Your task to perform on an android device: Do I have any events tomorrow? Image 0: 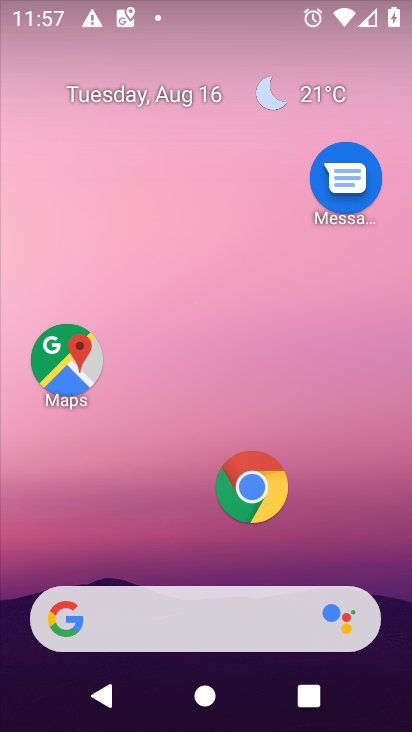
Step 0: drag from (141, 430) to (190, 64)
Your task to perform on an android device: Do I have any events tomorrow? Image 1: 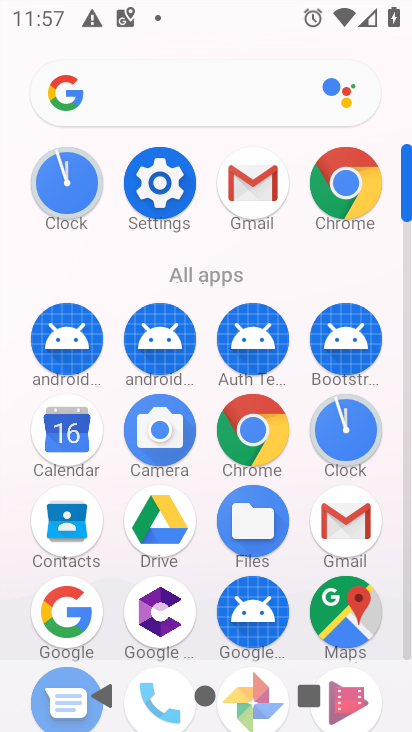
Step 1: click (70, 434)
Your task to perform on an android device: Do I have any events tomorrow? Image 2: 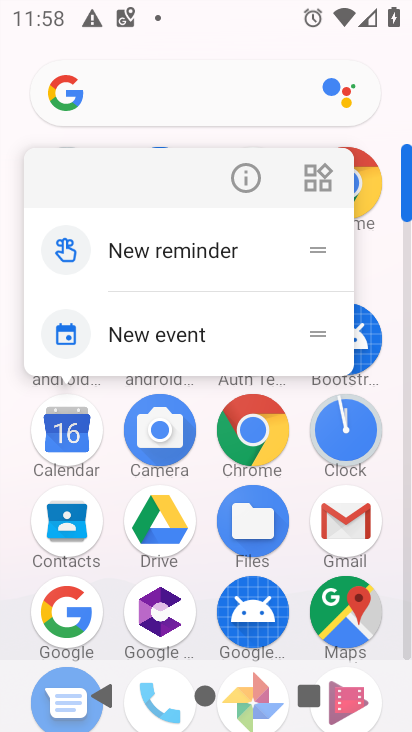
Step 2: click (56, 427)
Your task to perform on an android device: Do I have any events tomorrow? Image 3: 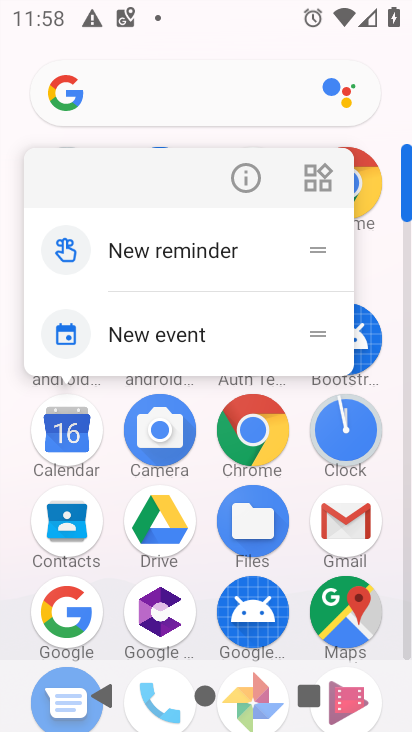
Step 3: click (77, 422)
Your task to perform on an android device: Do I have any events tomorrow? Image 4: 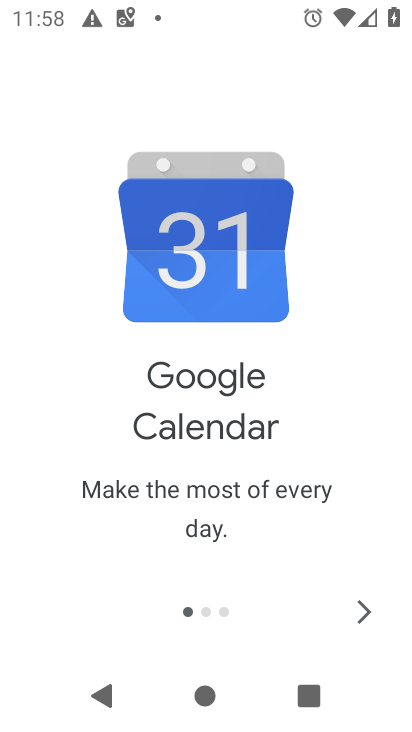
Step 4: click (356, 602)
Your task to perform on an android device: Do I have any events tomorrow? Image 5: 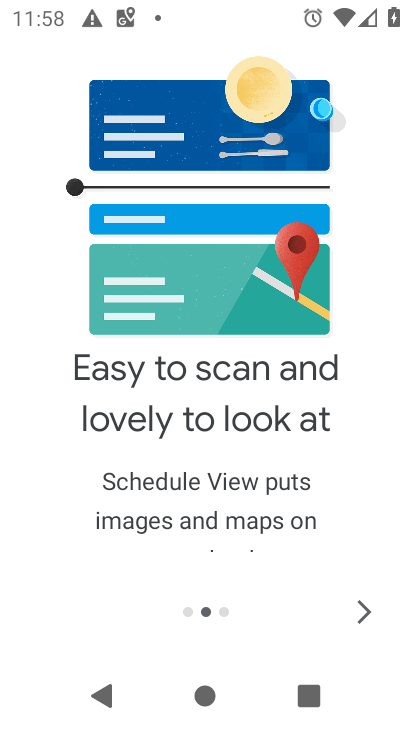
Step 5: click (355, 608)
Your task to perform on an android device: Do I have any events tomorrow? Image 6: 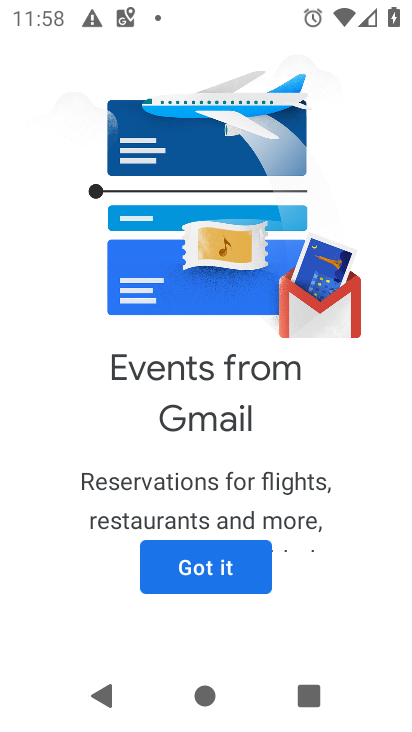
Step 6: click (174, 561)
Your task to perform on an android device: Do I have any events tomorrow? Image 7: 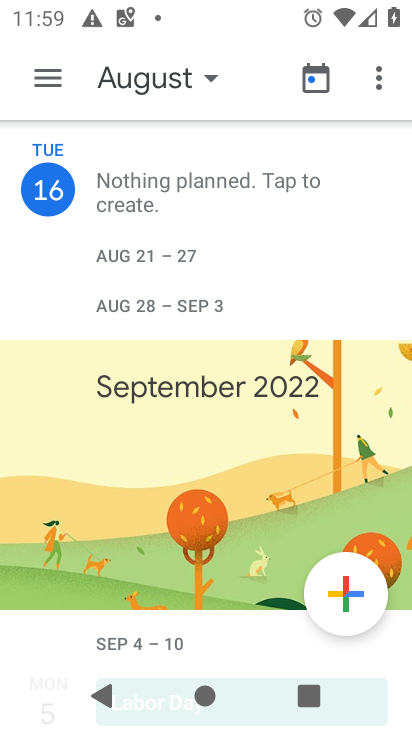
Step 7: click (173, 79)
Your task to perform on an android device: Do I have any events tomorrow? Image 8: 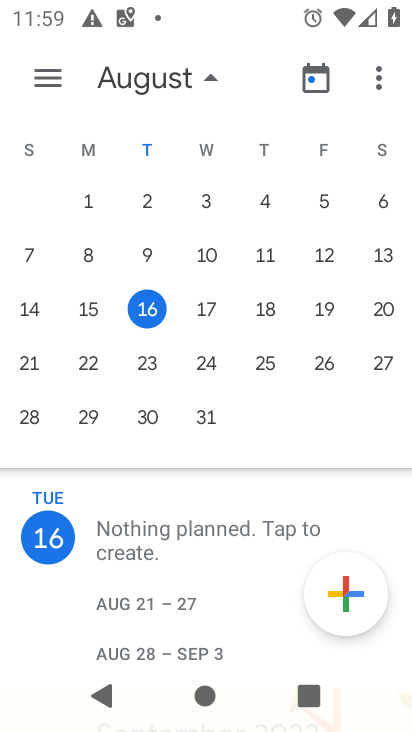
Step 8: click (205, 313)
Your task to perform on an android device: Do I have any events tomorrow? Image 9: 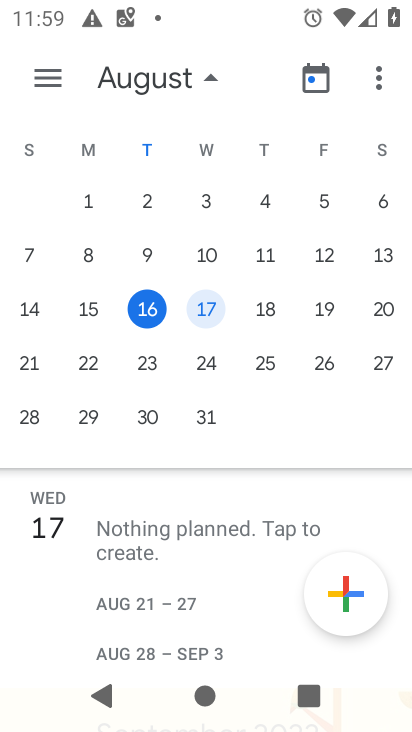
Step 9: task complete